Your task to perform on an android device: turn on the 24-hour format for clock Image 0: 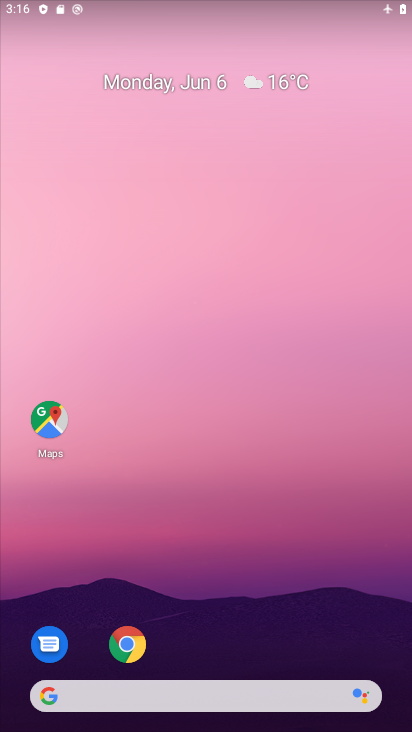
Step 0: drag from (211, 655) to (245, 328)
Your task to perform on an android device: turn on the 24-hour format for clock Image 1: 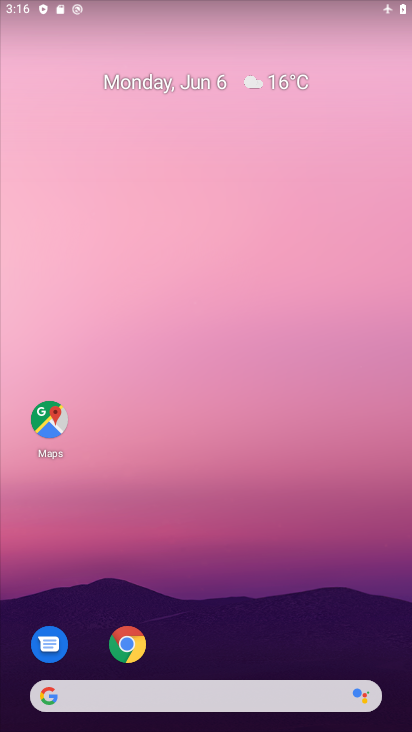
Step 1: drag from (240, 650) to (411, 129)
Your task to perform on an android device: turn on the 24-hour format for clock Image 2: 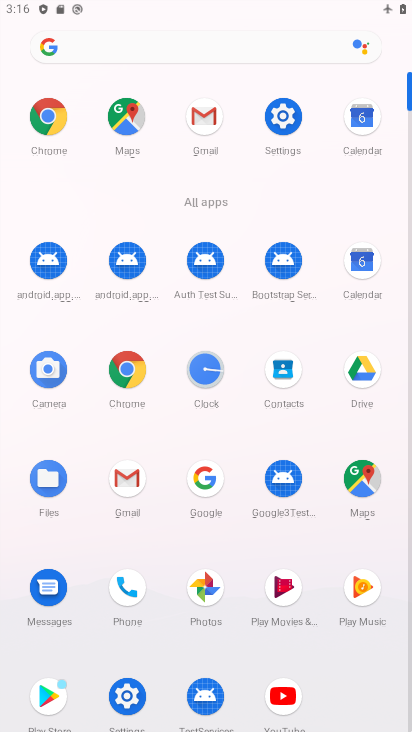
Step 2: click (129, 689)
Your task to perform on an android device: turn on the 24-hour format for clock Image 3: 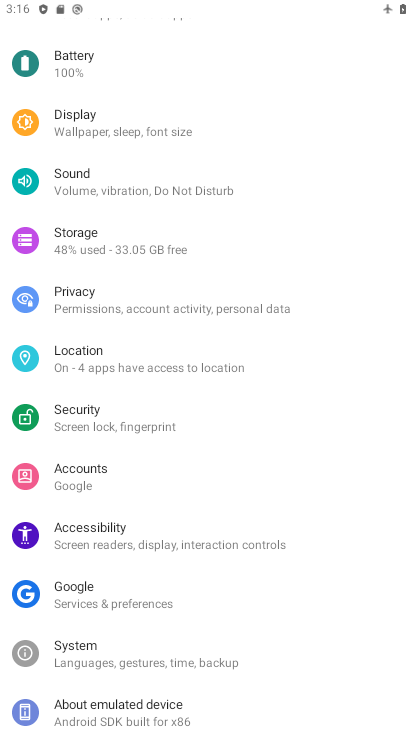
Step 3: click (97, 667)
Your task to perform on an android device: turn on the 24-hour format for clock Image 4: 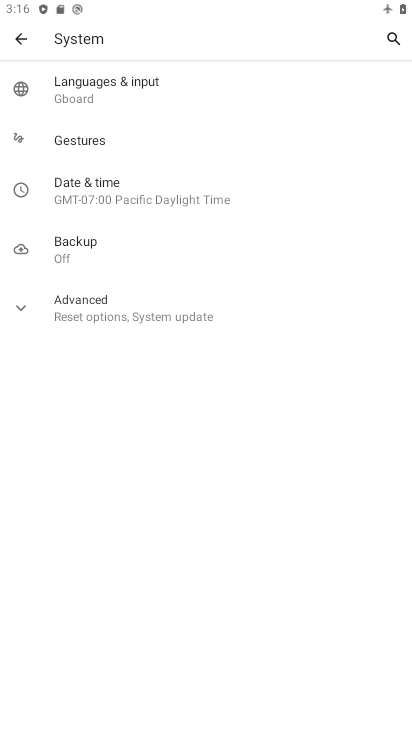
Step 4: click (116, 181)
Your task to perform on an android device: turn on the 24-hour format for clock Image 5: 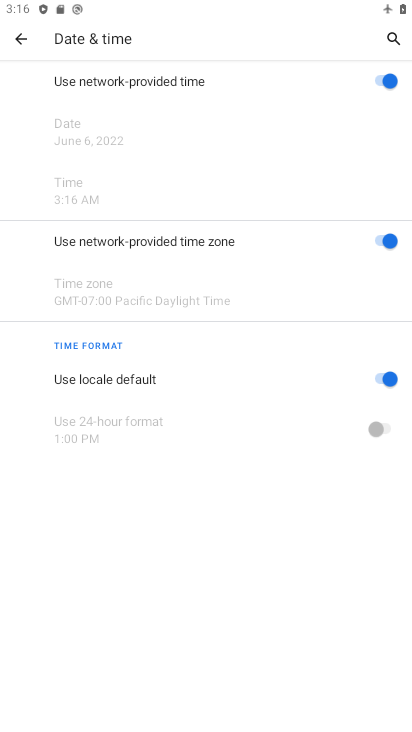
Step 5: click (376, 383)
Your task to perform on an android device: turn on the 24-hour format for clock Image 6: 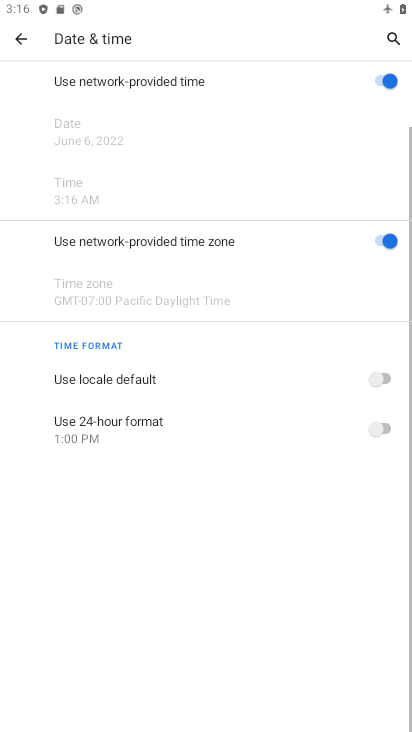
Step 6: click (397, 428)
Your task to perform on an android device: turn on the 24-hour format for clock Image 7: 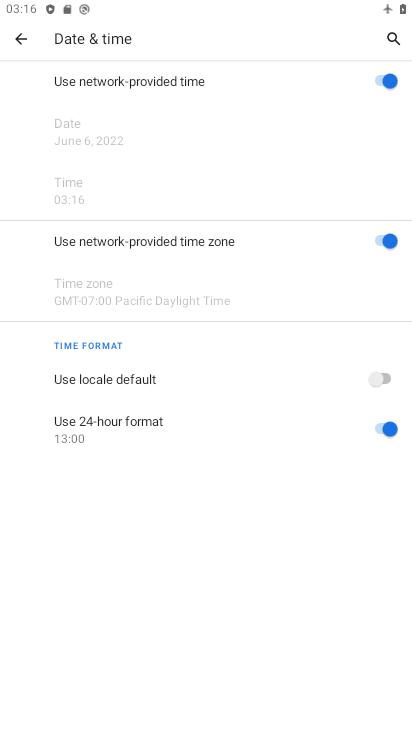
Step 7: task complete